Your task to perform on an android device: check android version Image 0: 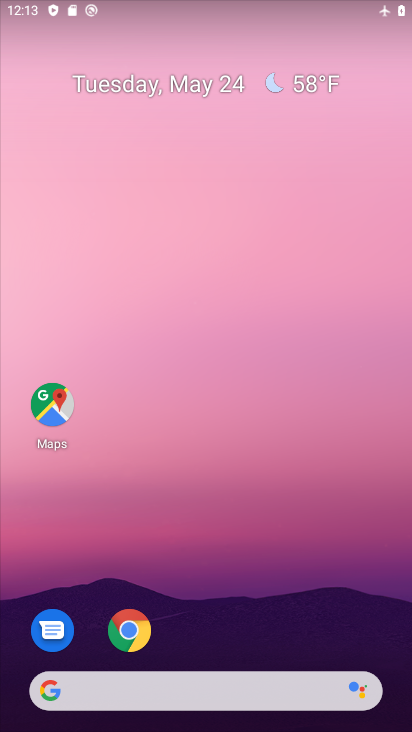
Step 0: drag from (271, 578) to (186, 134)
Your task to perform on an android device: check android version Image 1: 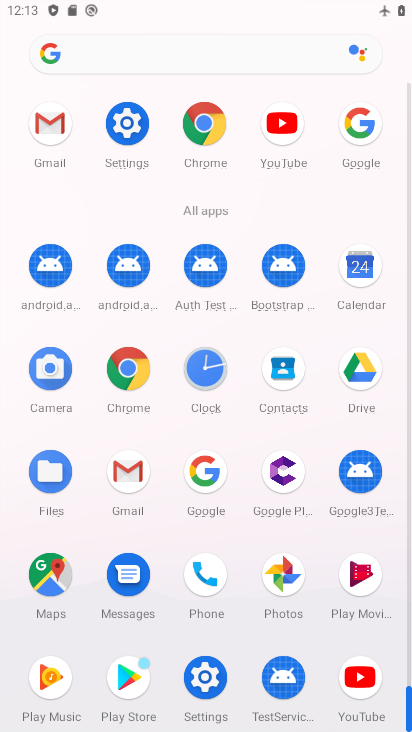
Step 1: click (127, 123)
Your task to perform on an android device: check android version Image 2: 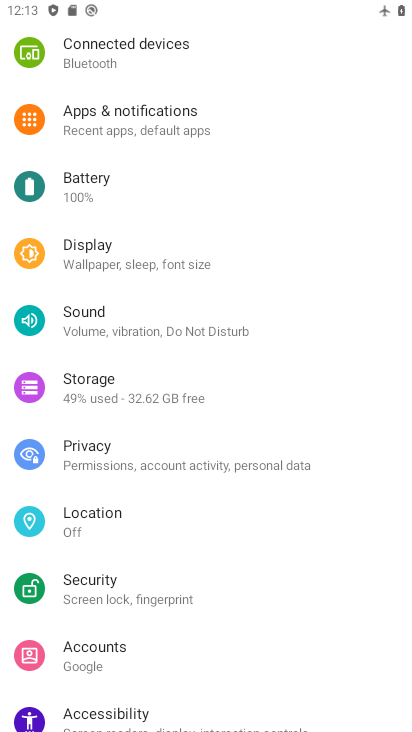
Step 2: drag from (165, 432) to (177, 356)
Your task to perform on an android device: check android version Image 3: 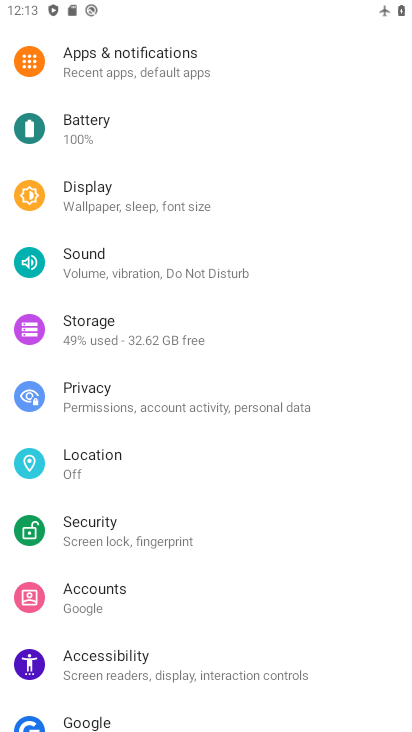
Step 3: drag from (136, 576) to (203, 476)
Your task to perform on an android device: check android version Image 4: 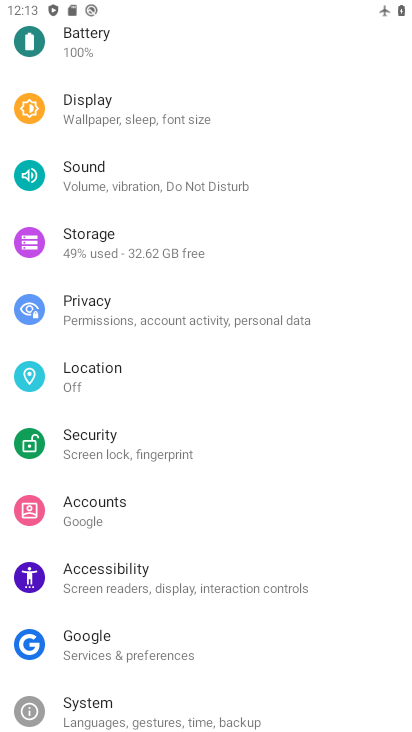
Step 4: drag from (100, 542) to (135, 454)
Your task to perform on an android device: check android version Image 5: 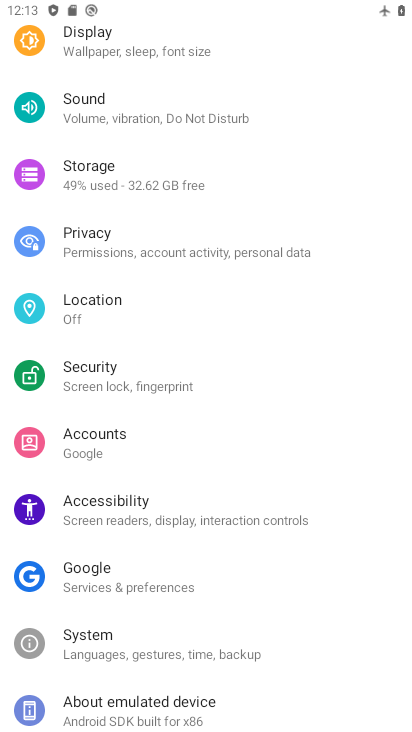
Step 5: drag from (86, 543) to (129, 447)
Your task to perform on an android device: check android version Image 6: 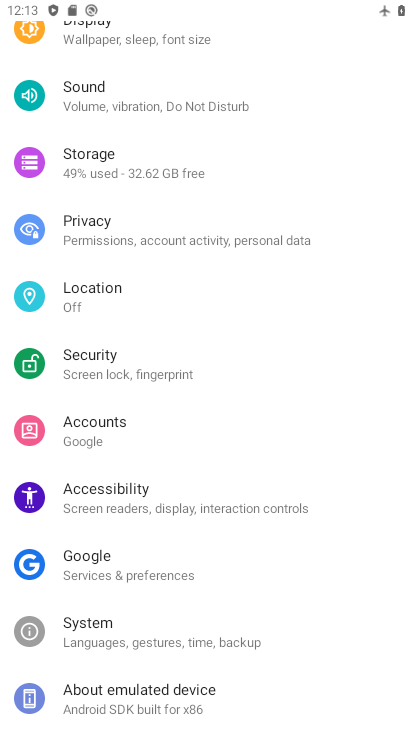
Step 6: click (134, 697)
Your task to perform on an android device: check android version Image 7: 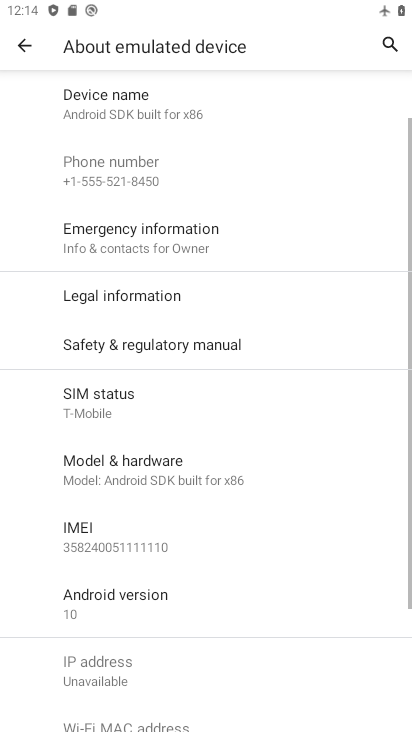
Step 7: click (141, 595)
Your task to perform on an android device: check android version Image 8: 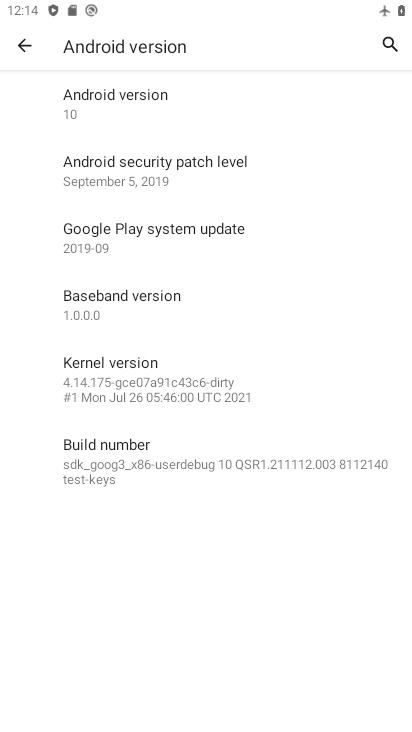
Step 8: task complete